Your task to perform on an android device: Go to Android settings Image 0: 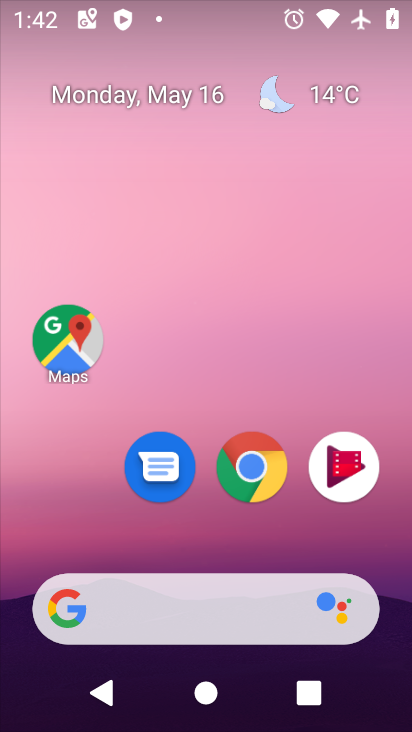
Step 0: drag from (175, 523) to (217, 135)
Your task to perform on an android device: Go to Android settings Image 1: 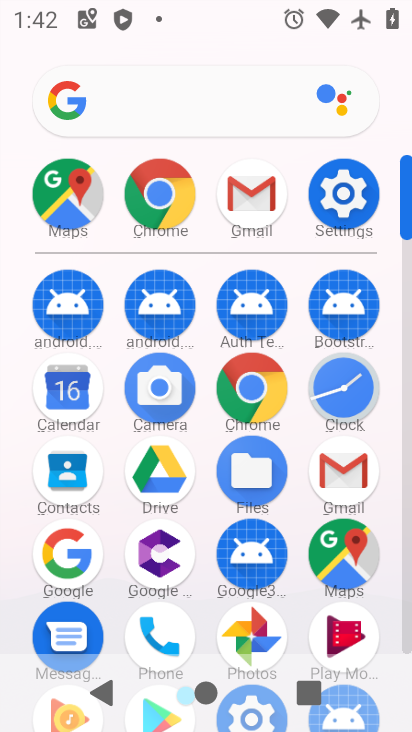
Step 1: click (326, 190)
Your task to perform on an android device: Go to Android settings Image 2: 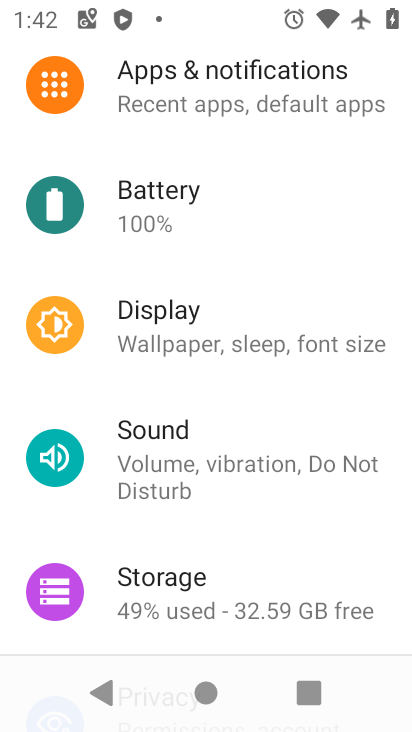
Step 2: task complete